Your task to perform on an android device: toggle show notifications on the lock screen Image 0: 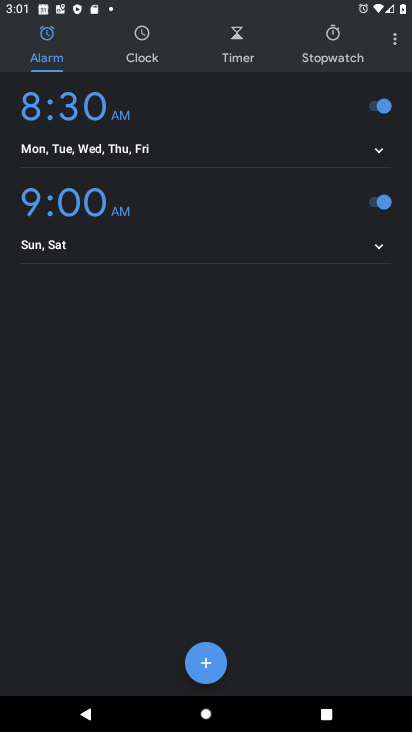
Step 0: press home button
Your task to perform on an android device: toggle show notifications on the lock screen Image 1: 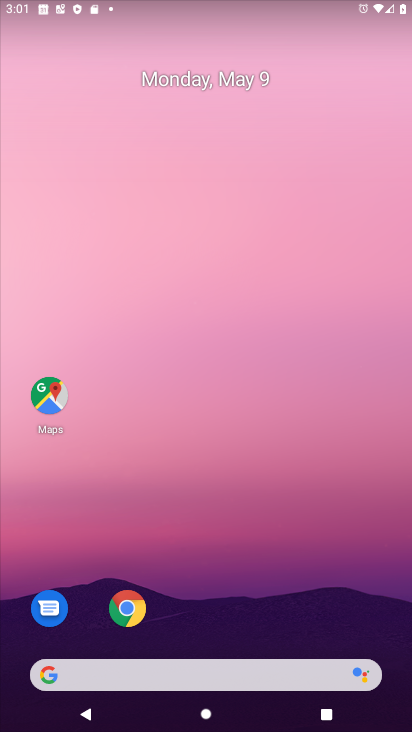
Step 1: drag from (210, 601) to (265, 7)
Your task to perform on an android device: toggle show notifications on the lock screen Image 2: 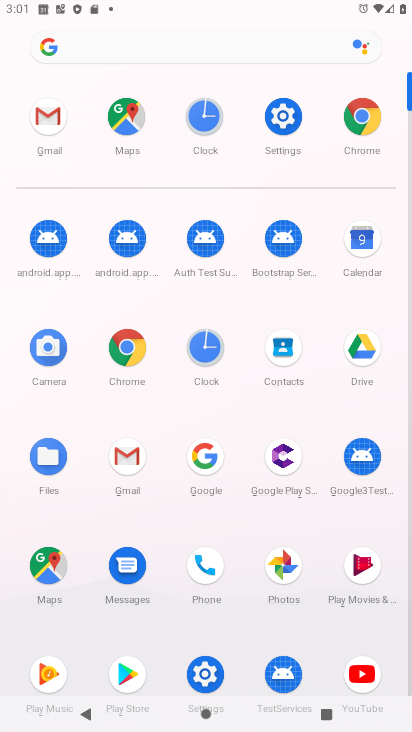
Step 2: click (198, 659)
Your task to perform on an android device: toggle show notifications on the lock screen Image 3: 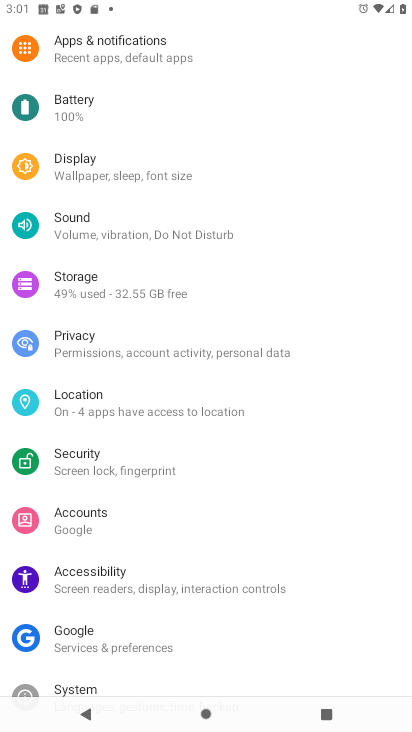
Step 3: click (163, 44)
Your task to perform on an android device: toggle show notifications on the lock screen Image 4: 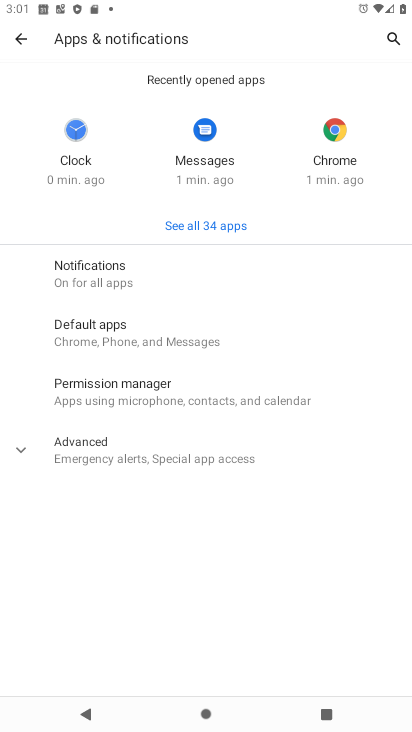
Step 4: click (150, 289)
Your task to perform on an android device: toggle show notifications on the lock screen Image 5: 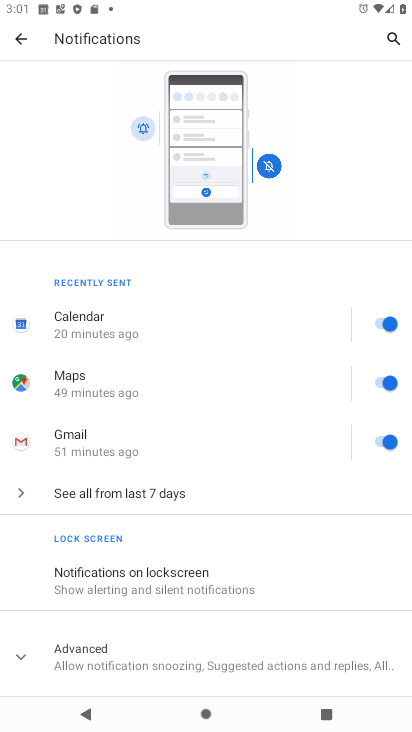
Step 5: click (205, 572)
Your task to perform on an android device: toggle show notifications on the lock screen Image 6: 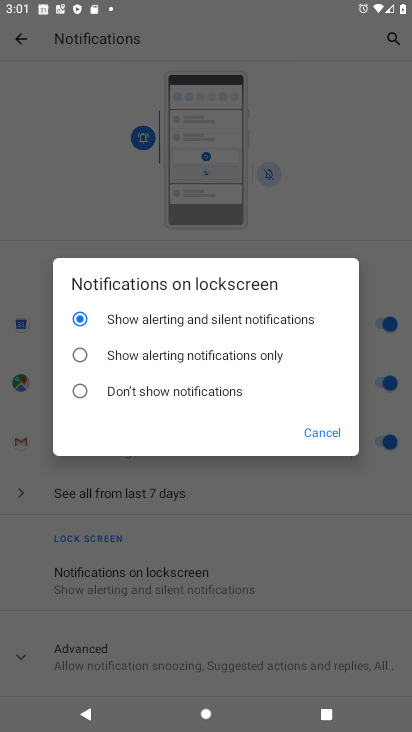
Step 6: task complete